Your task to perform on an android device: search for starred emails in the gmail app Image 0: 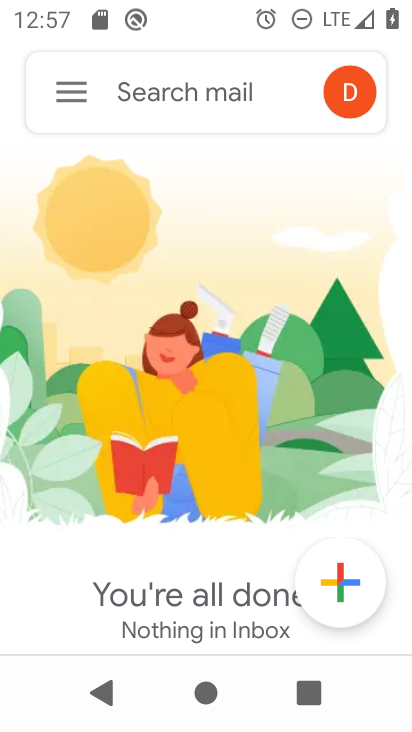
Step 0: press home button
Your task to perform on an android device: search for starred emails in the gmail app Image 1: 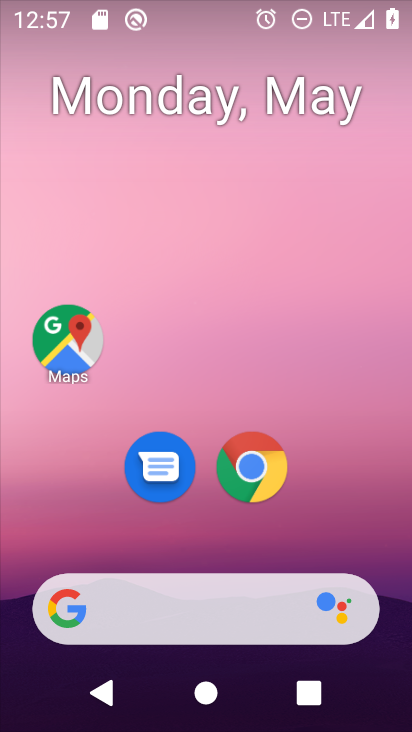
Step 1: drag from (370, 555) to (380, 13)
Your task to perform on an android device: search for starred emails in the gmail app Image 2: 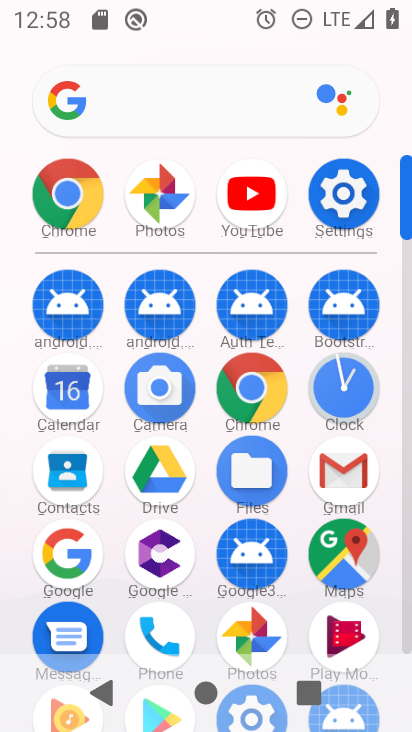
Step 2: click (346, 479)
Your task to perform on an android device: search for starred emails in the gmail app Image 3: 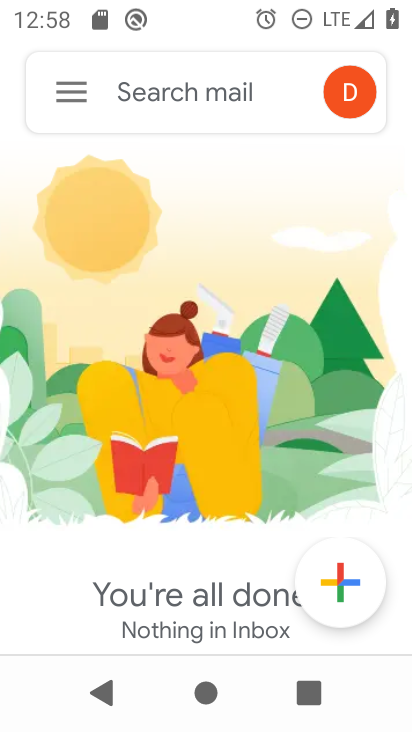
Step 3: click (72, 87)
Your task to perform on an android device: search for starred emails in the gmail app Image 4: 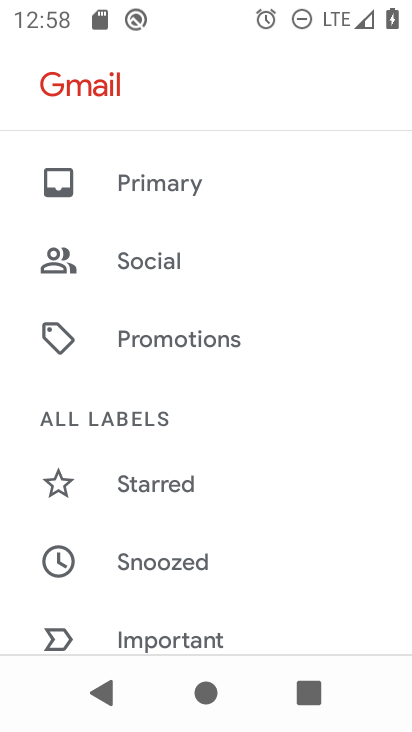
Step 4: click (126, 483)
Your task to perform on an android device: search for starred emails in the gmail app Image 5: 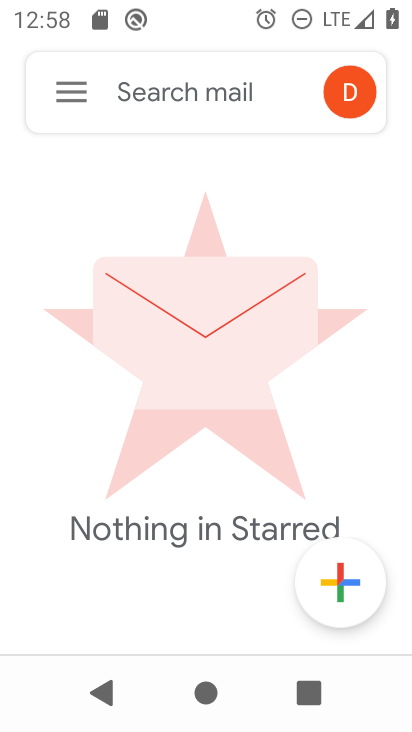
Step 5: task complete